Your task to perform on an android device: open a bookmark in the chrome app Image 0: 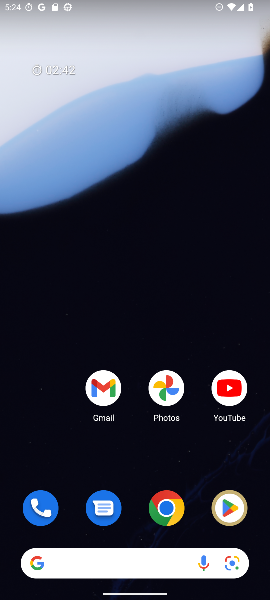
Step 0: drag from (143, 513) to (190, 113)
Your task to perform on an android device: open a bookmark in the chrome app Image 1: 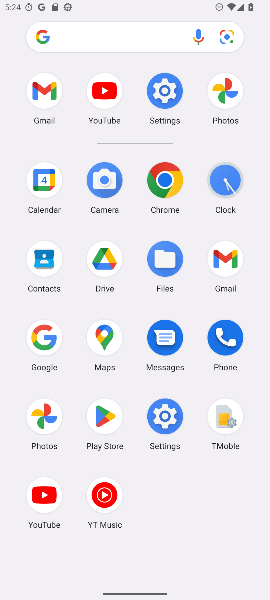
Step 1: click (160, 191)
Your task to perform on an android device: open a bookmark in the chrome app Image 2: 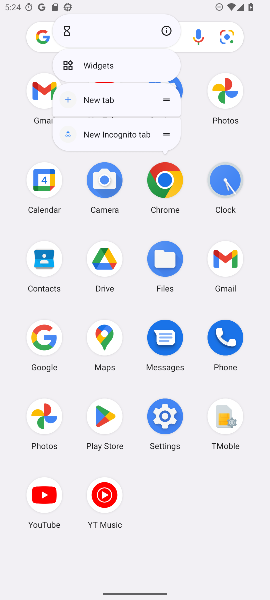
Step 2: click (169, 31)
Your task to perform on an android device: open a bookmark in the chrome app Image 3: 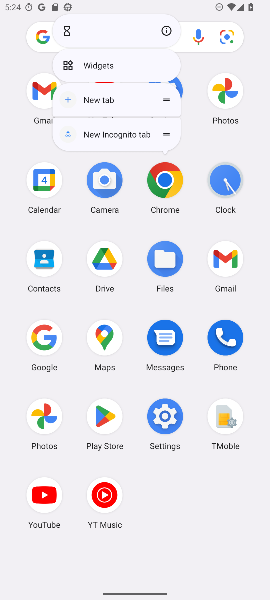
Step 3: click (169, 31)
Your task to perform on an android device: open a bookmark in the chrome app Image 4: 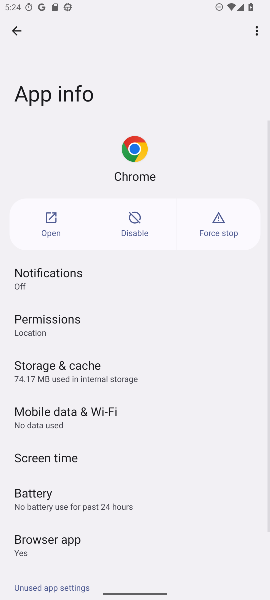
Step 4: click (59, 220)
Your task to perform on an android device: open a bookmark in the chrome app Image 5: 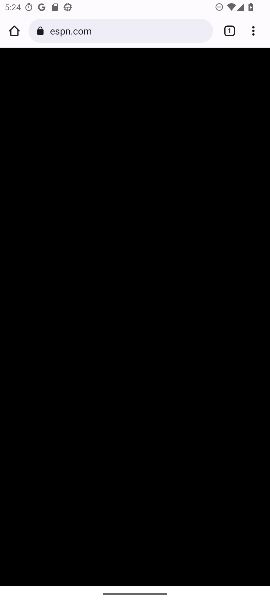
Step 5: task complete